Your task to perform on an android device: search for starred emails in the gmail app Image 0: 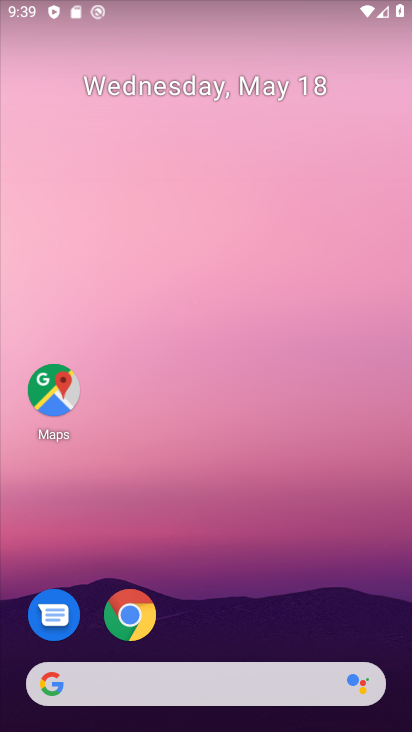
Step 0: drag from (194, 266) to (199, 232)
Your task to perform on an android device: search for starred emails in the gmail app Image 1: 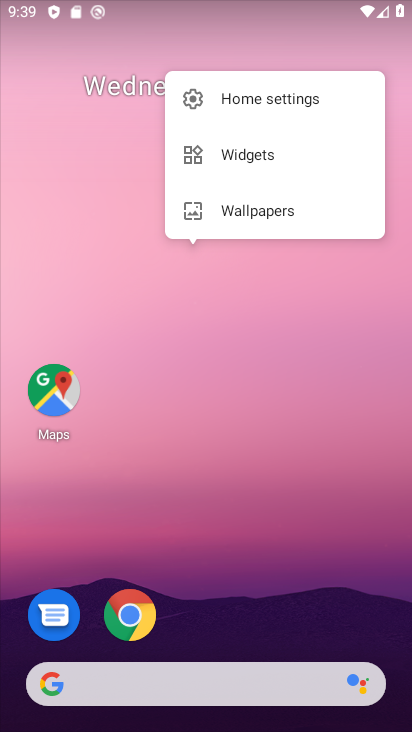
Step 1: drag from (235, 662) to (251, 80)
Your task to perform on an android device: search for starred emails in the gmail app Image 2: 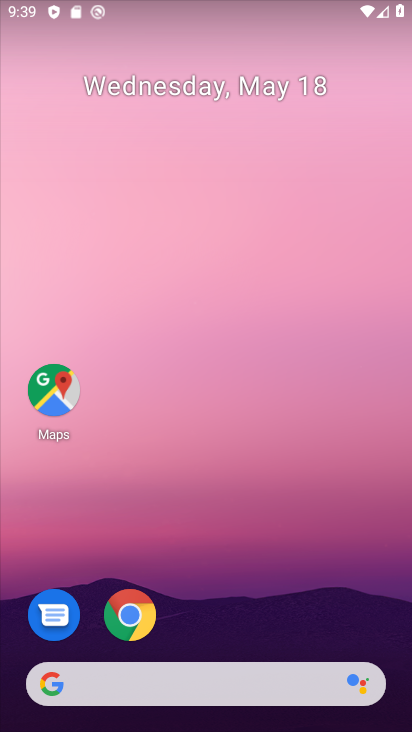
Step 2: drag from (205, 654) to (199, 204)
Your task to perform on an android device: search for starred emails in the gmail app Image 3: 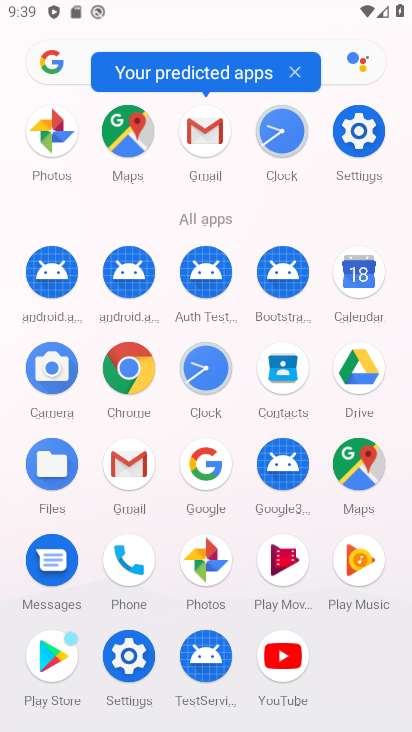
Step 3: click (131, 474)
Your task to perform on an android device: search for starred emails in the gmail app Image 4: 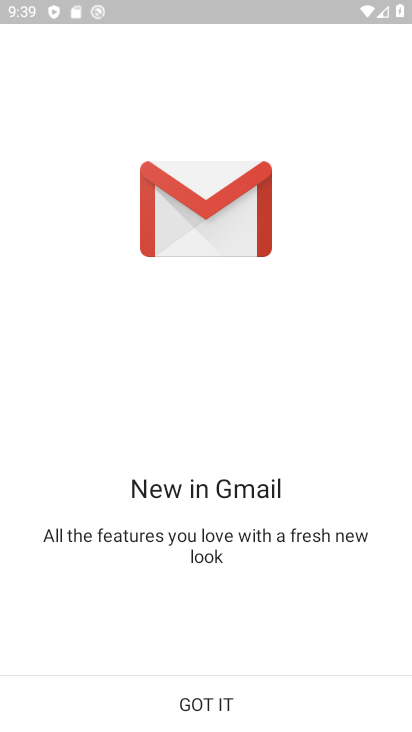
Step 4: click (219, 706)
Your task to perform on an android device: search for starred emails in the gmail app Image 5: 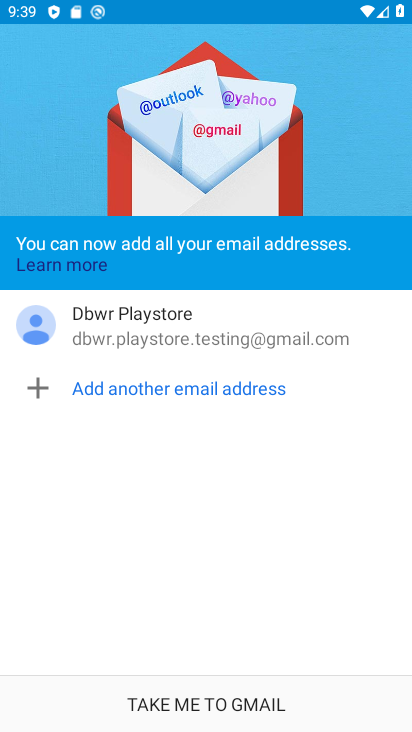
Step 5: click (219, 707)
Your task to perform on an android device: search for starred emails in the gmail app Image 6: 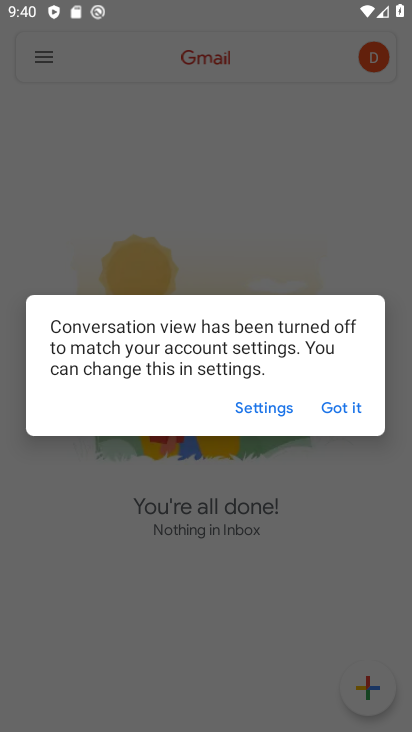
Step 6: click (350, 408)
Your task to perform on an android device: search for starred emails in the gmail app Image 7: 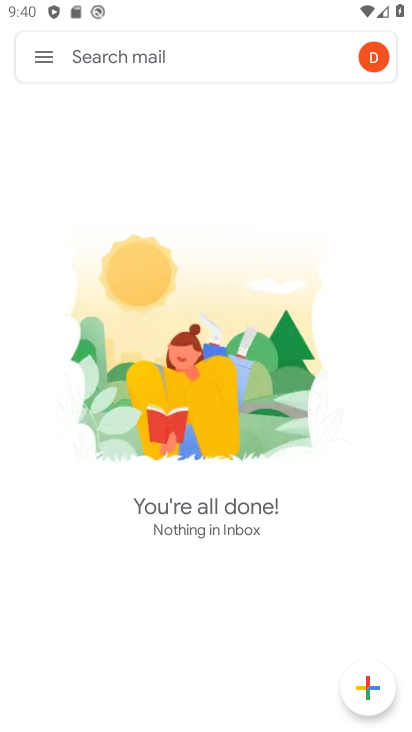
Step 7: click (40, 53)
Your task to perform on an android device: search for starred emails in the gmail app Image 8: 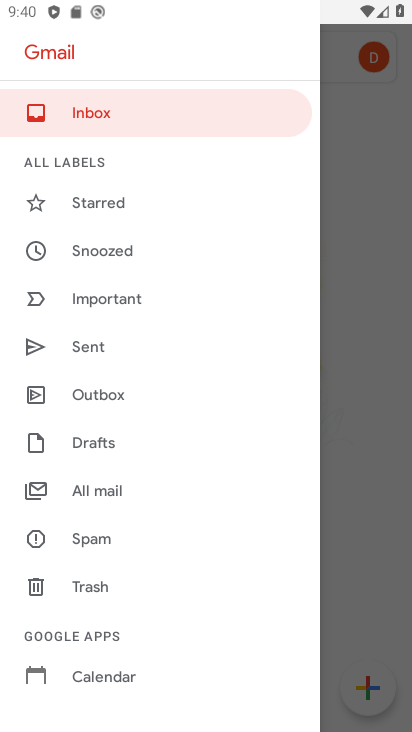
Step 8: click (92, 205)
Your task to perform on an android device: search for starred emails in the gmail app Image 9: 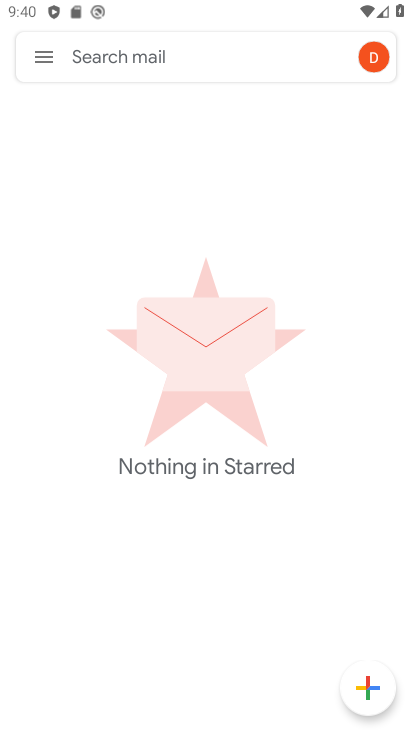
Step 9: task complete